Your task to perform on an android device: When is my next meeting? Image 0: 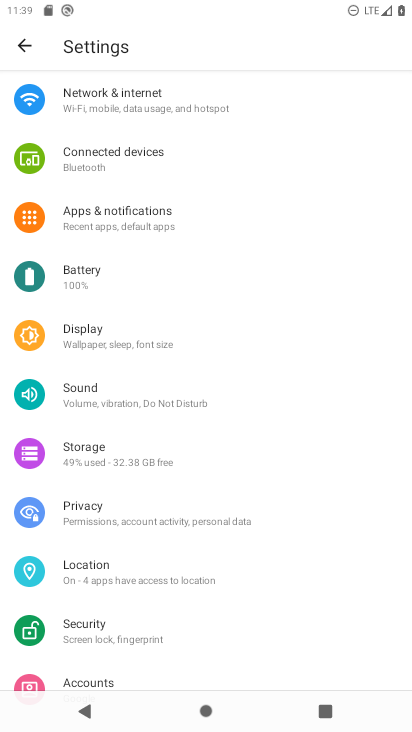
Step 0: press home button
Your task to perform on an android device: When is my next meeting? Image 1: 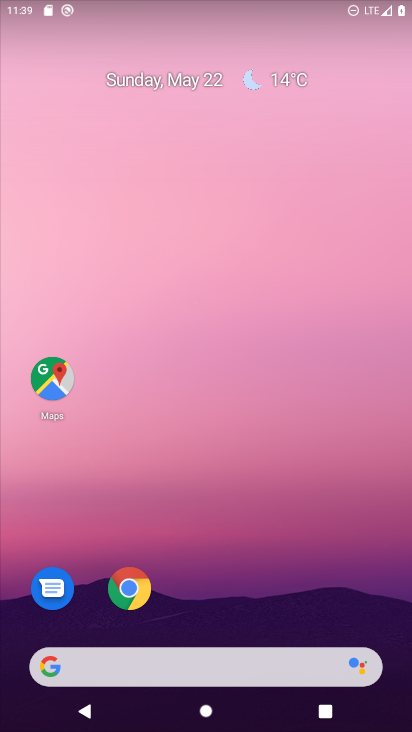
Step 1: drag from (245, 600) to (275, 166)
Your task to perform on an android device: When is my next meeting? Image 2: 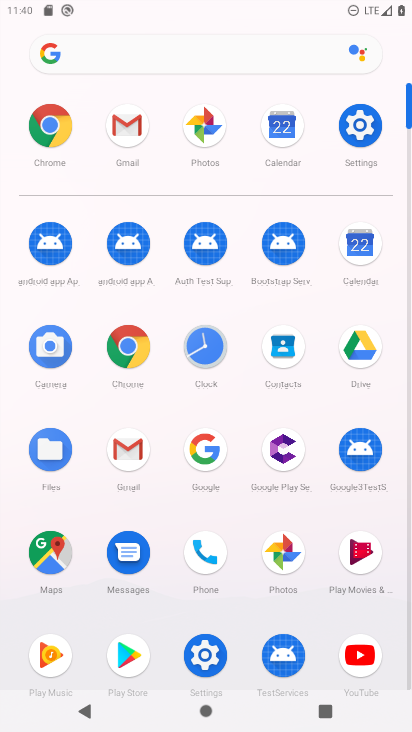
Step 2: click (341, 258)
Your task to perform on an android device: When is my next meeting? Image 3: 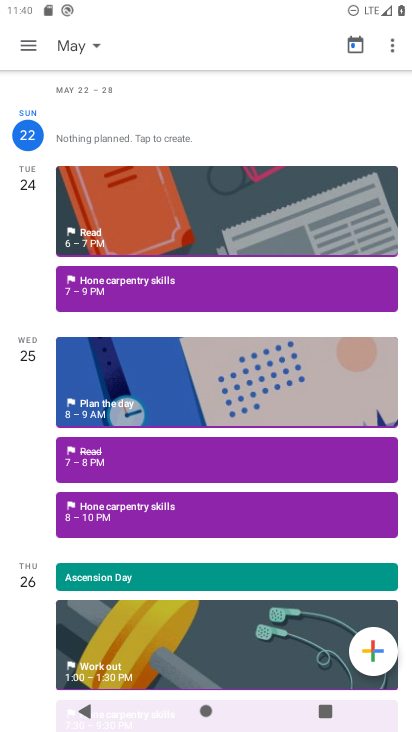
Step 3: task complete